Your task to perform on an android device: turn off notifications in google photos Image 0: 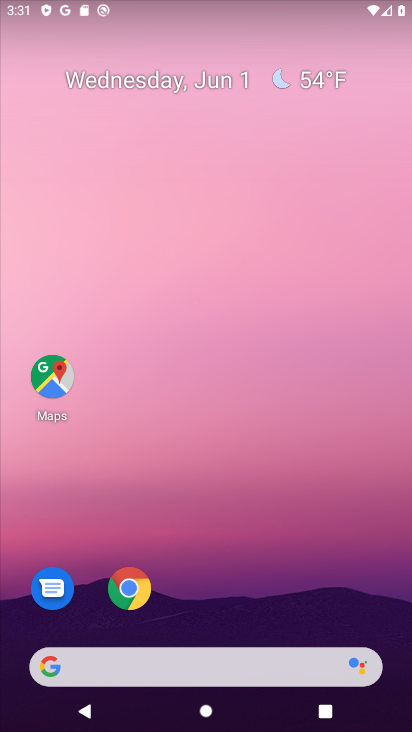
Step 0: click (137, 599)
Your task to perform on an android device: turn off notifications in google photos Image 1: 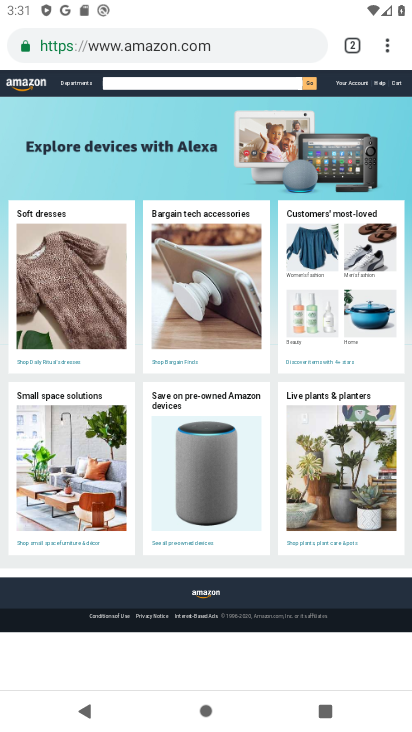
Step 1: click (387, 50)
Your task to perform on an android device: turn off notifications in google photos Image 2: 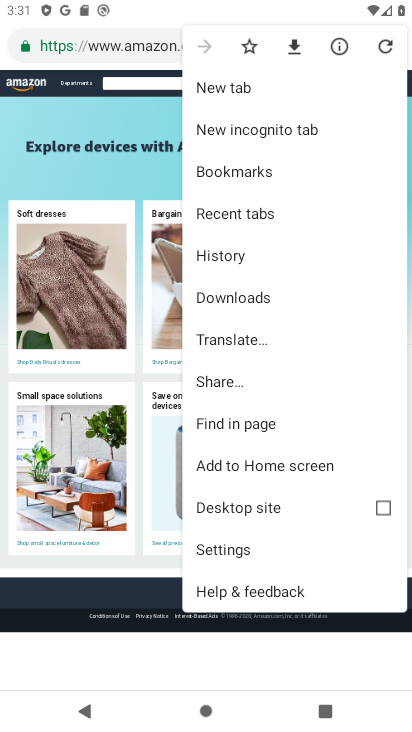
Step 2: click (241, 259)
Your task to perform on an android device: turn off notifications in google photos Image 3: 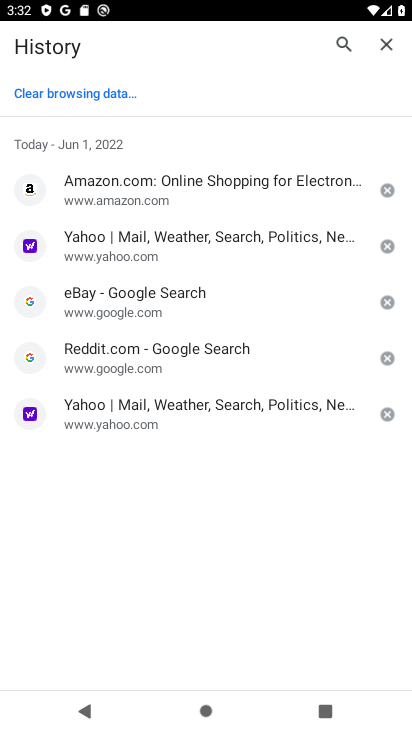
Step 3: click (103, 90)
Your task to perform on an android device: turn off notifications in google photos Image 4: 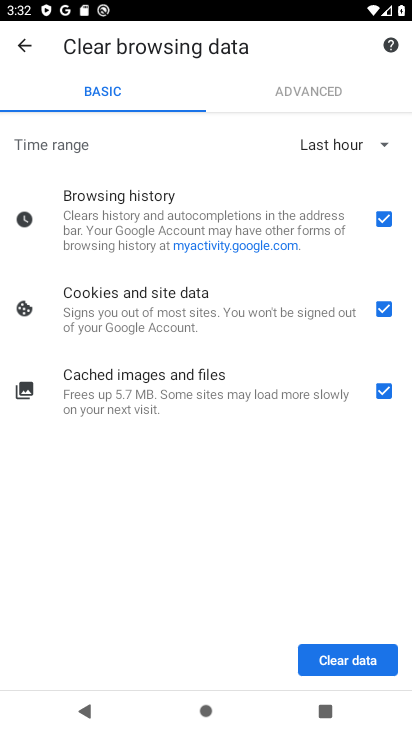
Step 4: click (375, 663)
Your task to perform on an android device: turn off notifications in google photos Image 5: 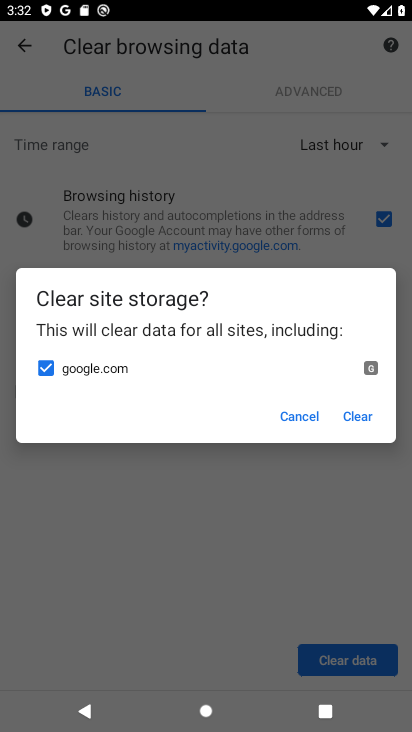
Step 5: click (355, 419)
Your task to perform on an android device: turn off notifications in google photos Image 6: 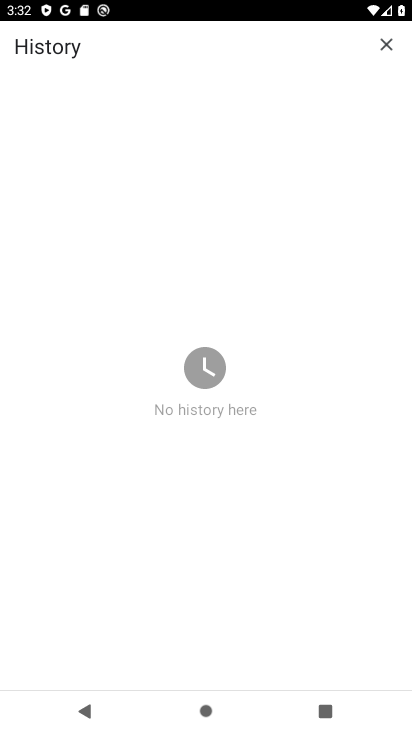
Step 6: task complete